Your task to perform on an android device: snooze an email in the gmail app Image 0: 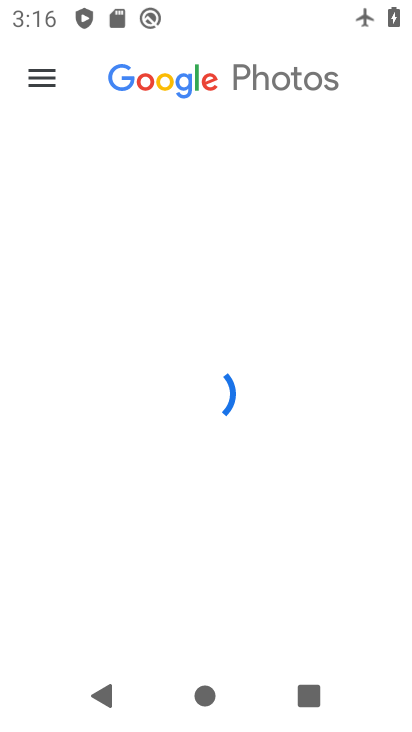
Step 0: press home button
Your task to perform on an android device: snooze an email in the gmail app Image 1: 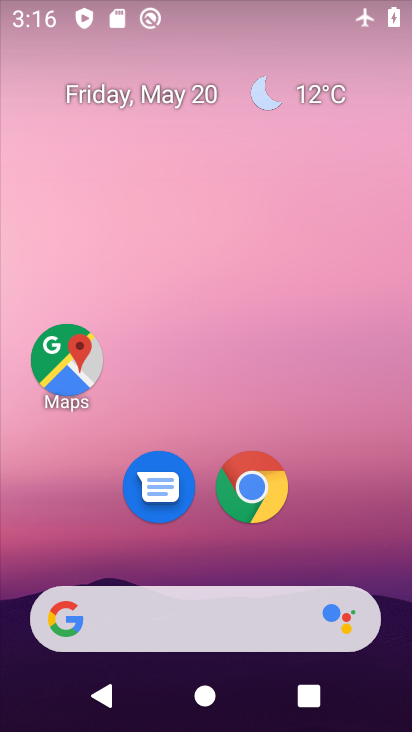
Step 1: drag from (299, 545) to (239, 226)
Your task to perform on an android device: snooze an email in the gmail app Image 2: 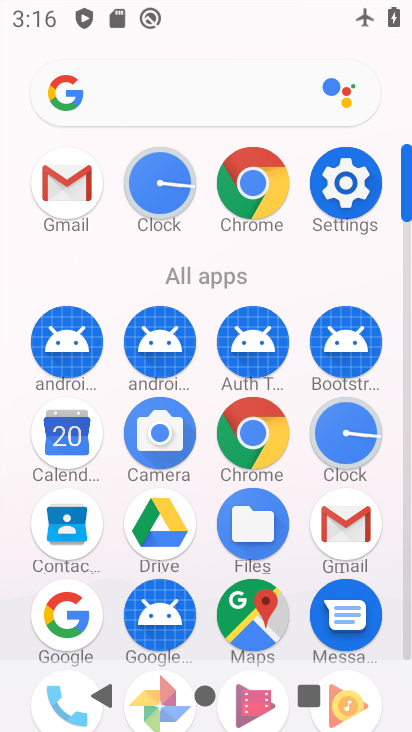
Step 2: click (330, 518)
Your task to perform on an android device: snooze an email in the gmail app Image 3: 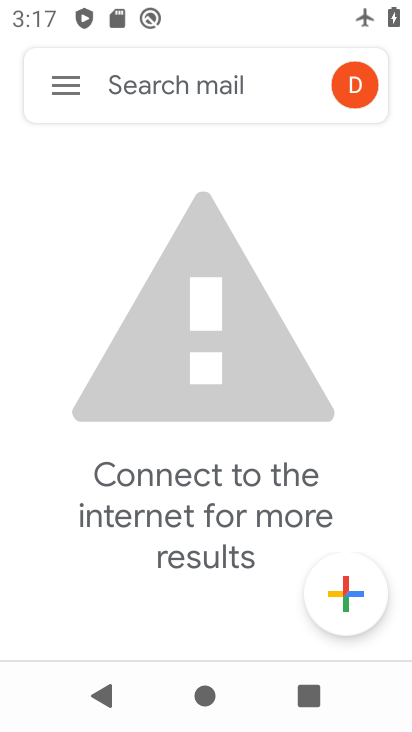
Step 3: task complete